Your task to perform on an android device: open app "Move to iOS" Image 0: 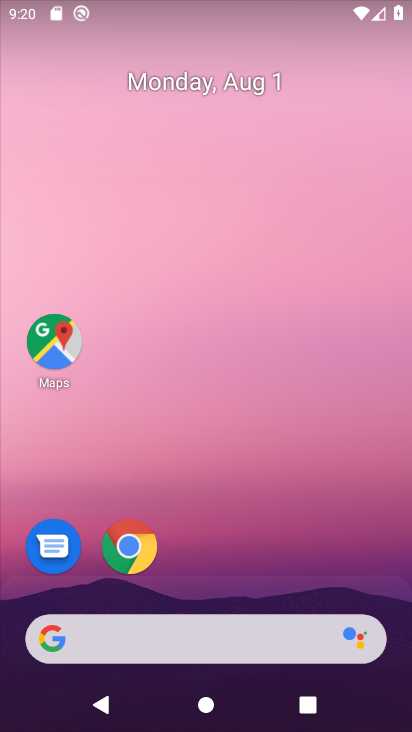
Step 0: press home button
Your task to perform on an android device: open app "Move to iOS" Image 1: 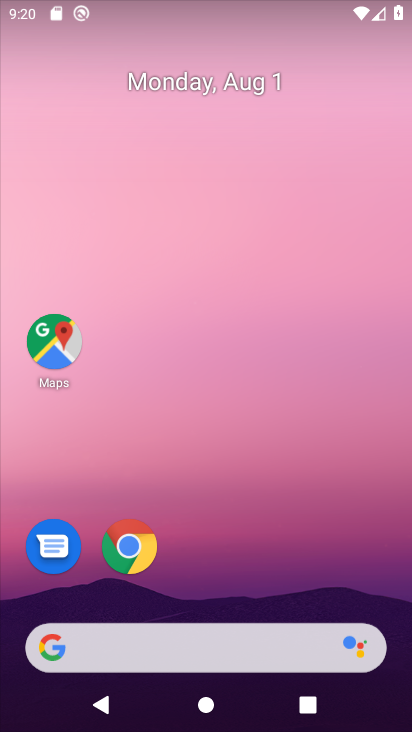
Step 1: drag from (209, 600) to (231, 42)
Your task to perform on an android device: open app "Move to iOS" Image 2: 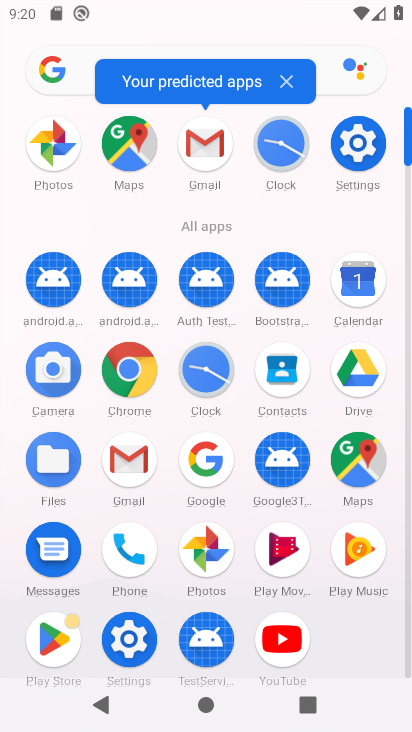
Step 2: click (49, 631)
Your task to perform on an android device: open app "Move to iOS" Image 3: 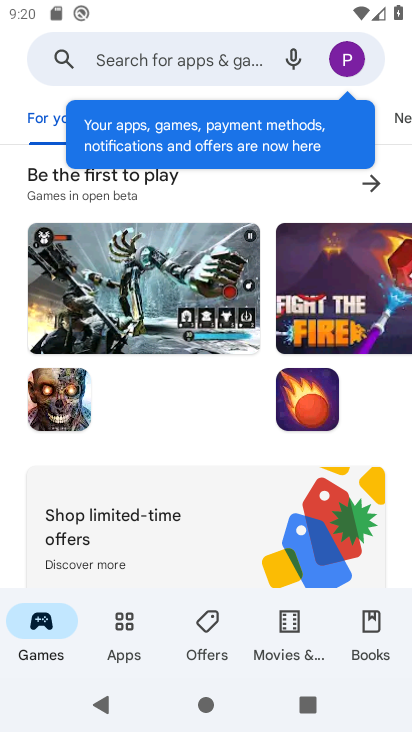
Step 3: click (127, 49)
Your task to perform on an android device: open app "Move to iOS" Image 4: 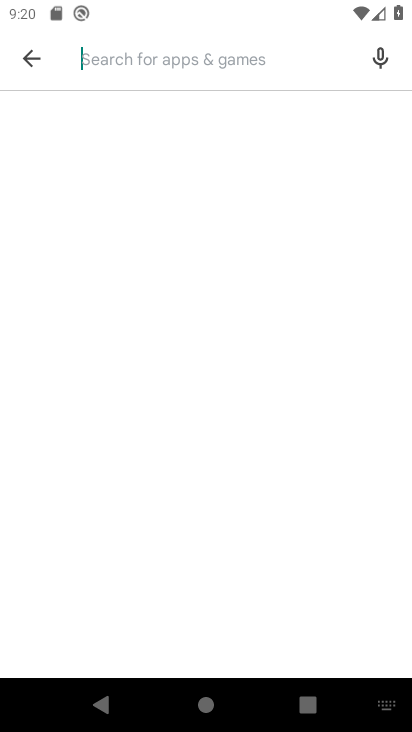
Step 4: type "Move to iOS"
Your task to perform on an android device: open app "Move to iOS" Image 5: 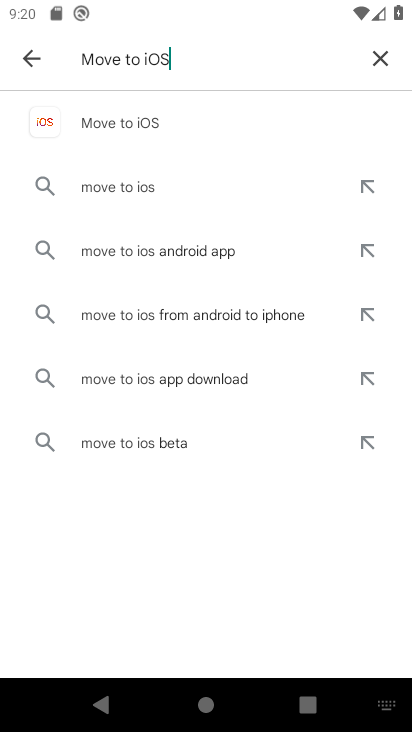
Step 5: click (168, 117)
Your task to perform on an android device: open app "Move to iOS" Image 6: 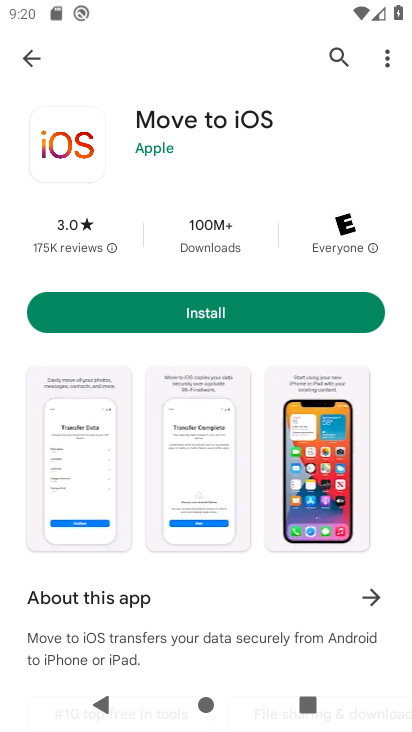
Step 6: task complete